Your task to perform on an android device: Show me the alarms in the clock app Image 0: 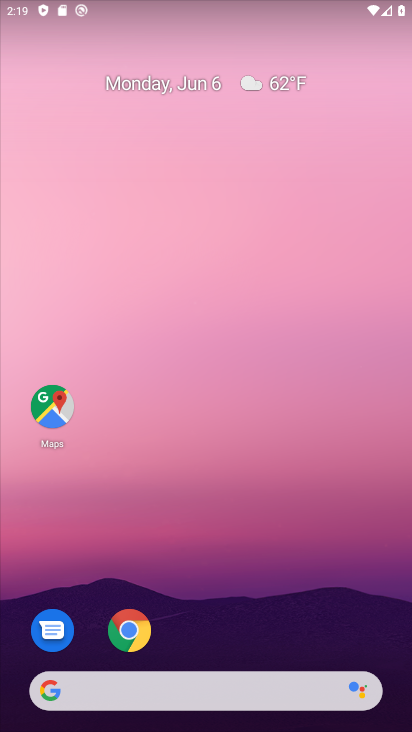
Step 0: drag from (245, 647) to (276, 199)
Your task to perform on an android device: Show me the alarms in the clock app Image 1: 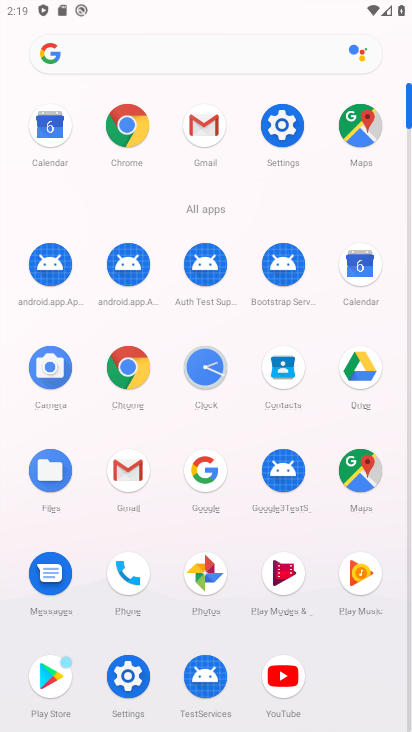
Step 1: click (204, 368)
Your task to perform on an android device: Show me the alarms in the clock app Image 2: 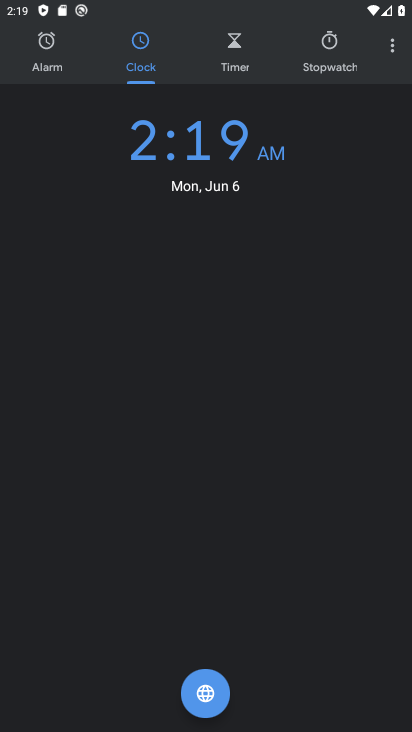
Step 2: click (56, 49)
Your task to perform on an android device: Show me the alarms in the clock app Image 3: 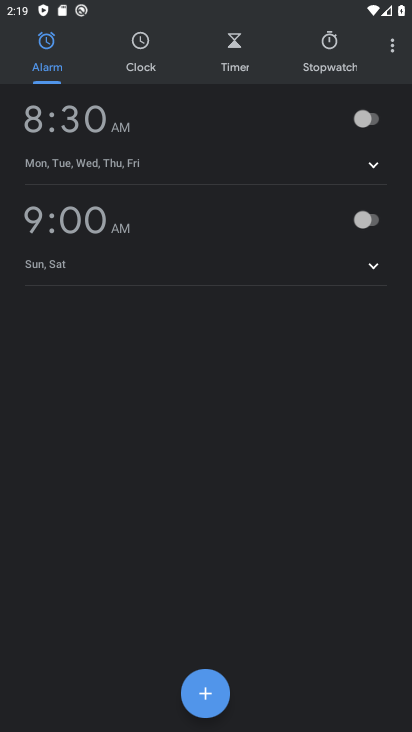
Step 3: task complete